Your task to perform on an android device: Open network settings Image 0: 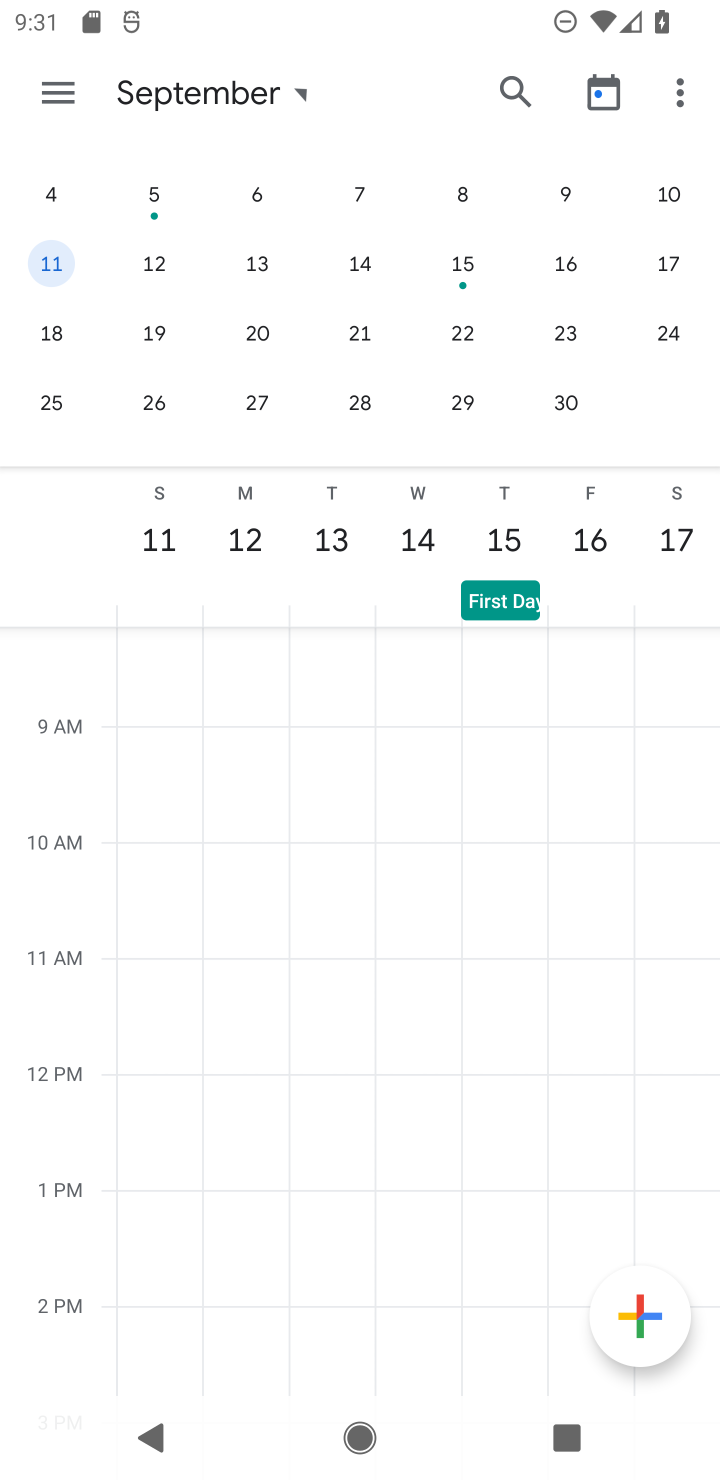
Step 0: press home button
Your task to perform on an android device: Open network settings Image 1: 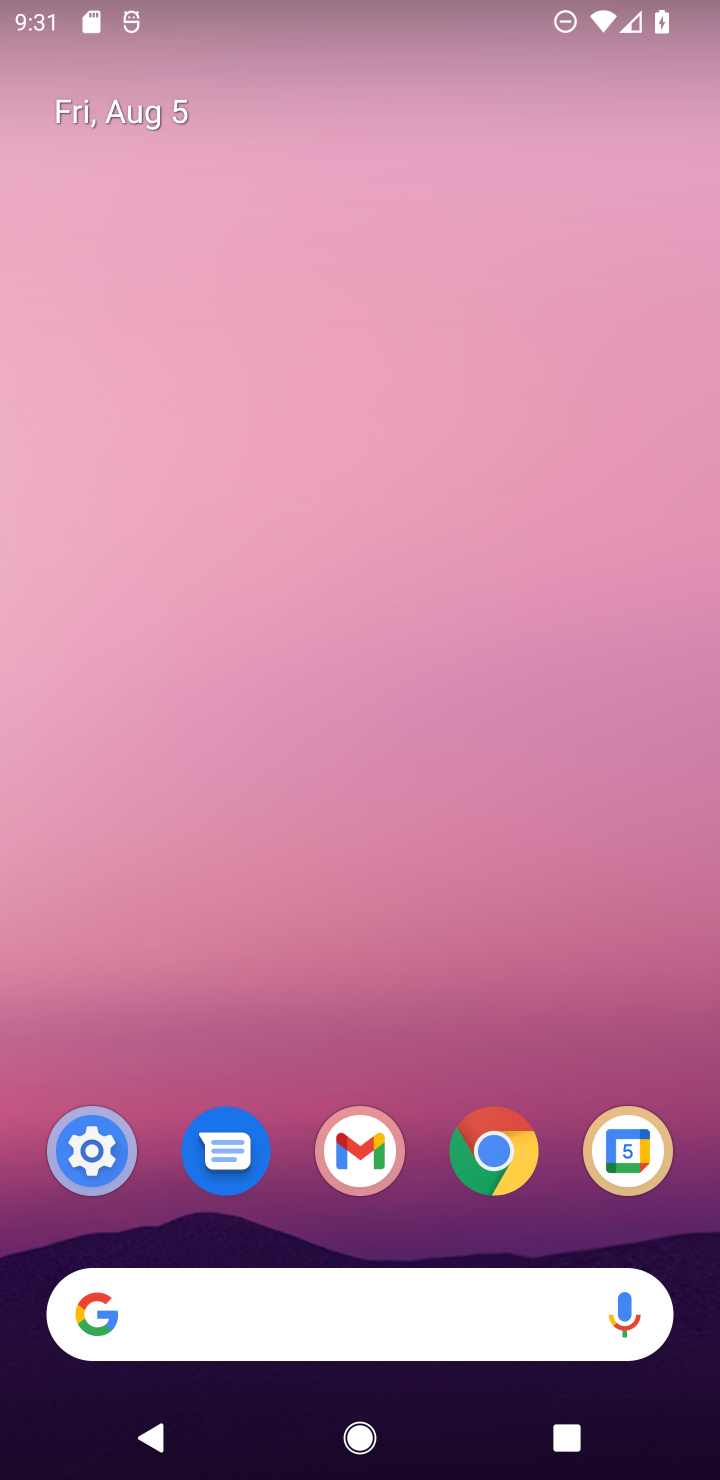
Step 1: click (97, 1147)
Your task to perform on an android device: Open network settings Image 2: 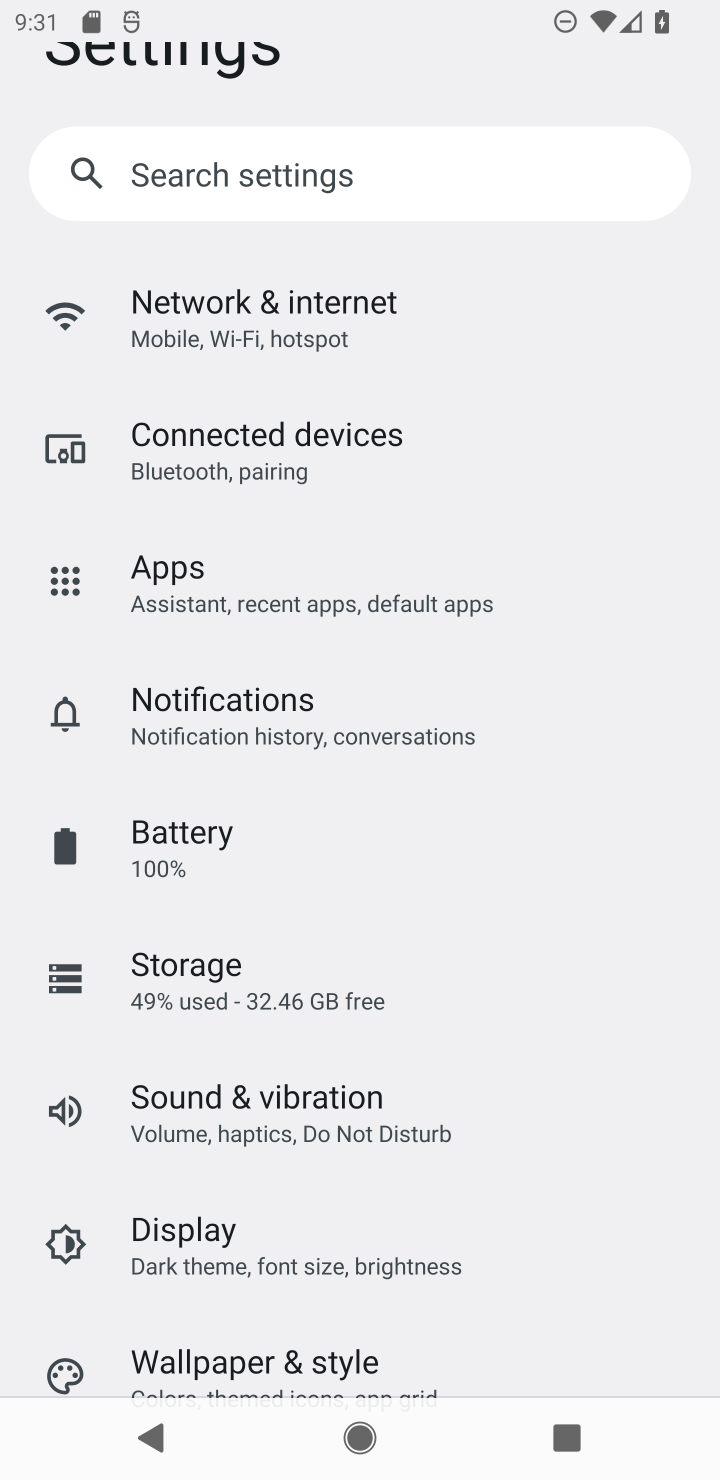
Step 2: click (306, 336)
Your task to perform on an android device: Open network settings Image 3: 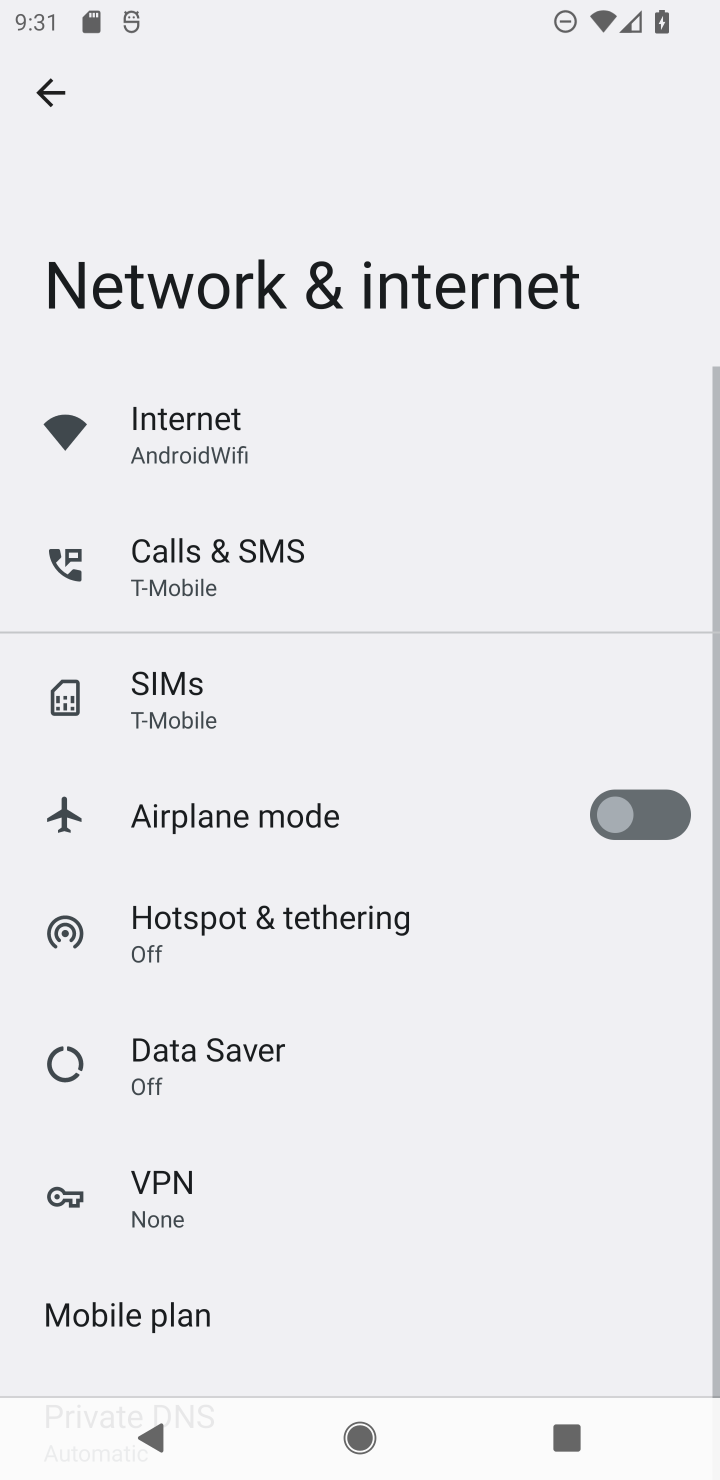
Step 3: task complete